Your task to perform on an android device: install app "Venmo" Image 0: 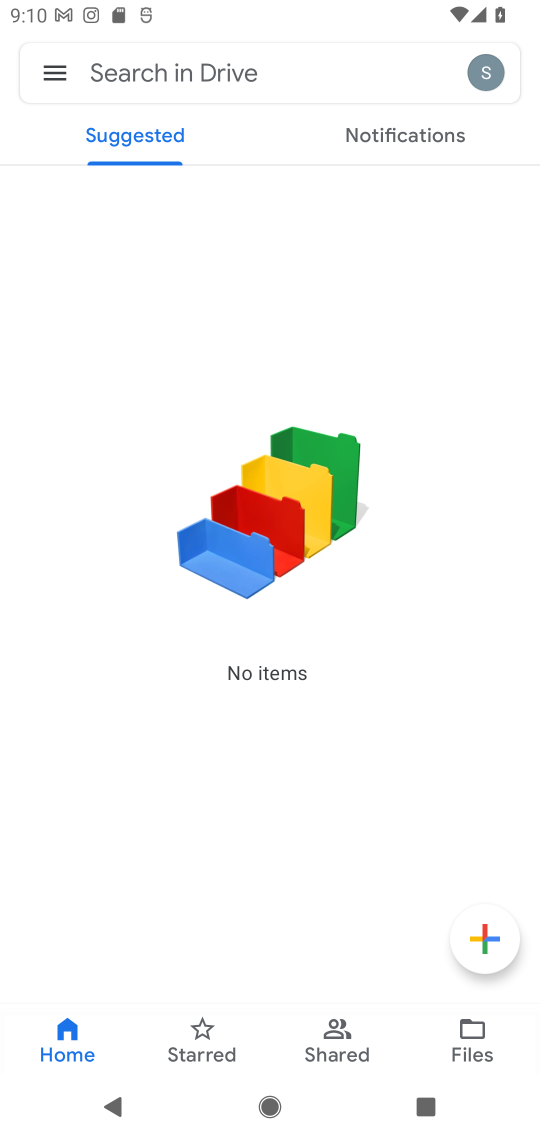
Step 0: press home button
Your task to perform on an android device: install app "Venmo" Image 1: 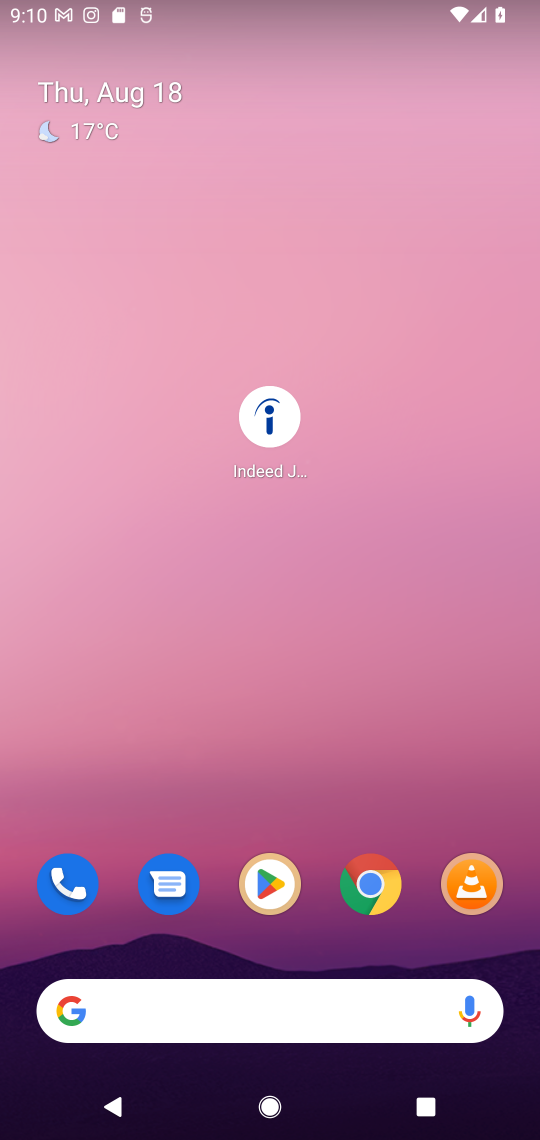
Step 1: drag from (252, 1009) to (250, 86)
Your task to perform on an android device: install app "Venmo" Image 2: 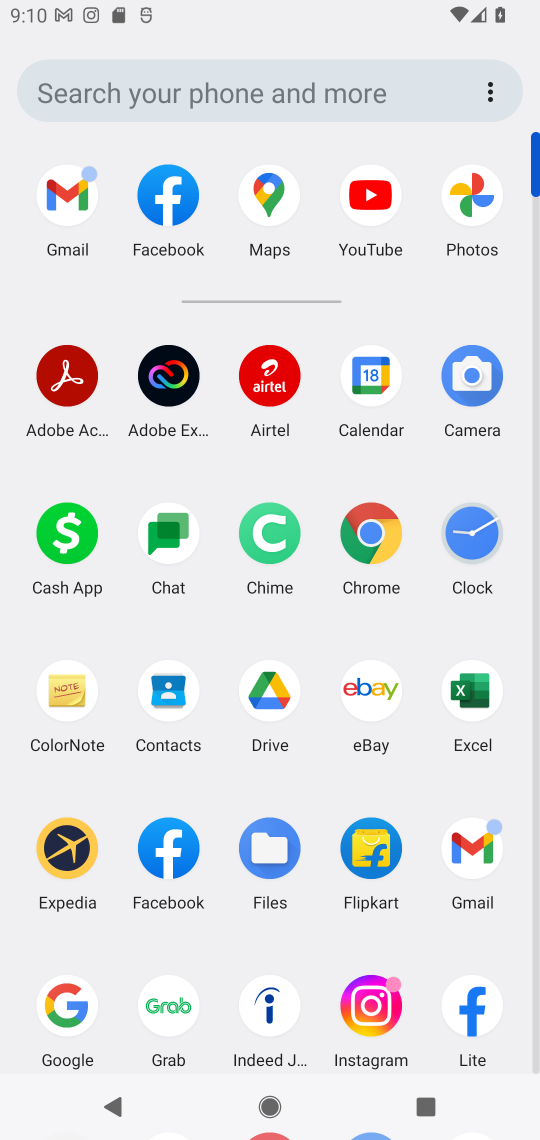
Step 2: drag from (199, 1034) to (216, 297)
Your task to perform on an android device: install app "Venmo" Image 3: 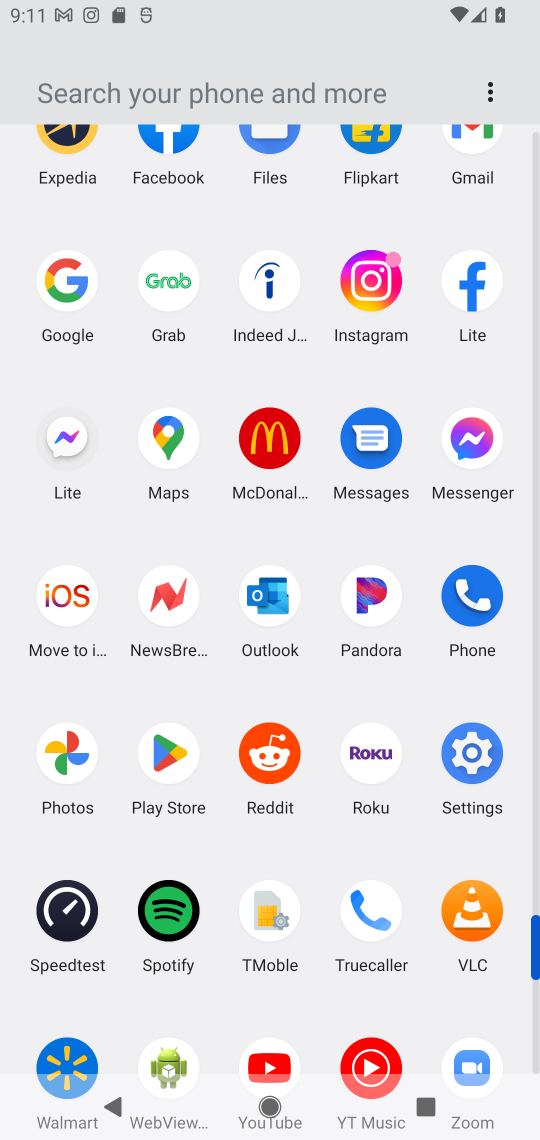
Step 3: click (173, 755)
Your task to perform on an android device: install app "Venmo" Image 4: 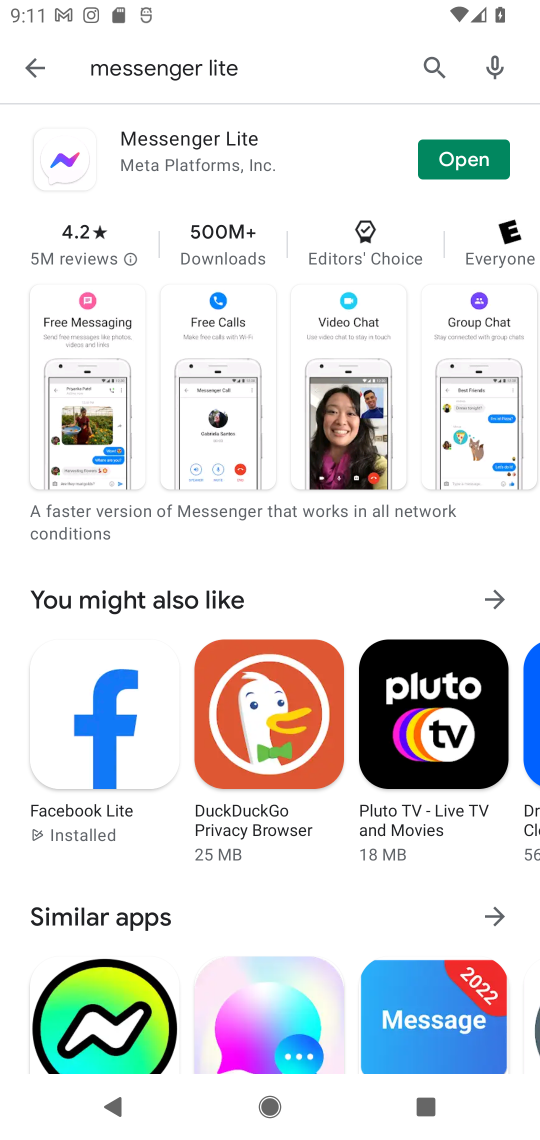
Step 4: press back button
Your task to perform on an android device: install app "Venmo" Image 5: 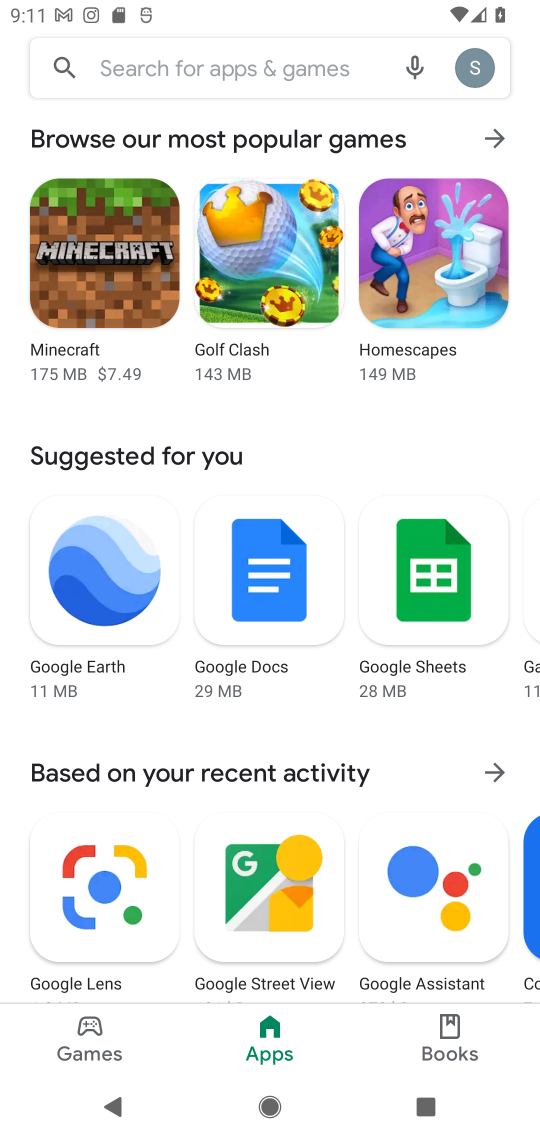
Step 5: click (299, 64)
Your task to perform on an android device: install app "Venmo" Image 6: 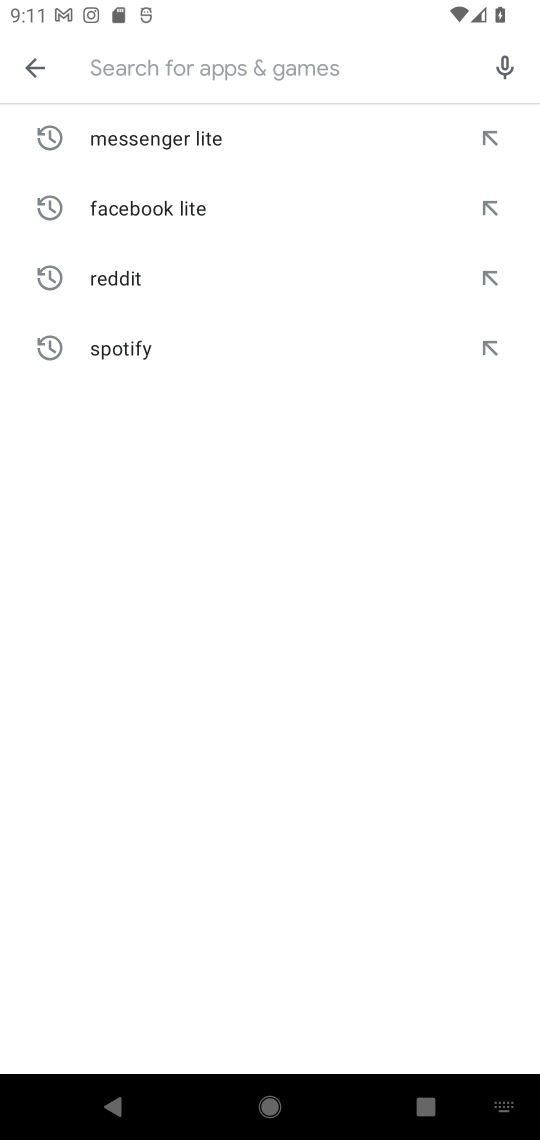
Step 6: type "Venmo"
Your task to perform on an android device: install app "Venmo" Image 7: 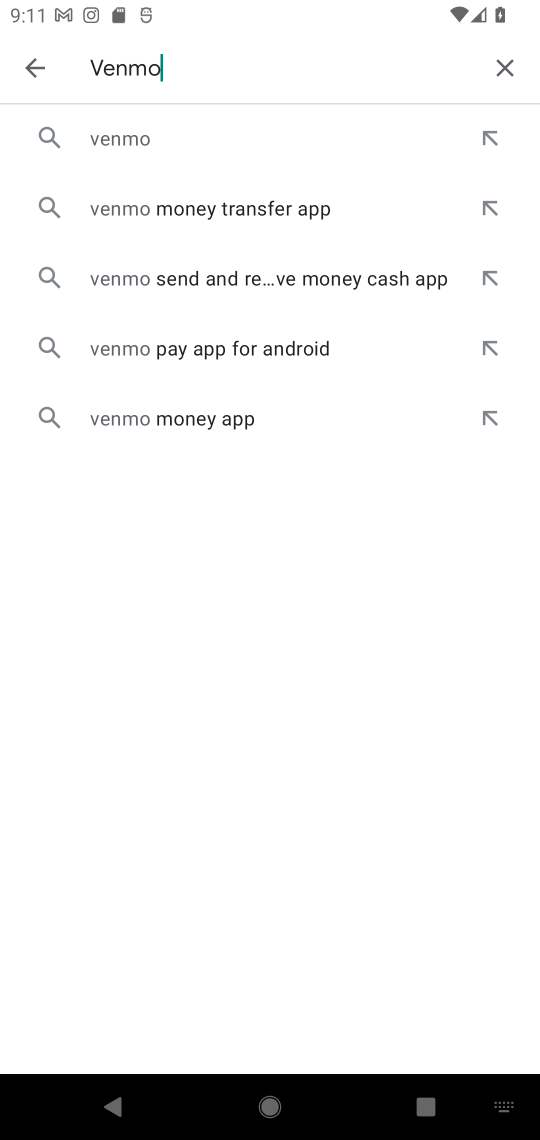
Step 7: click (106, 136)
Your task to perform on an android device: install app "Venmo" Image 8: 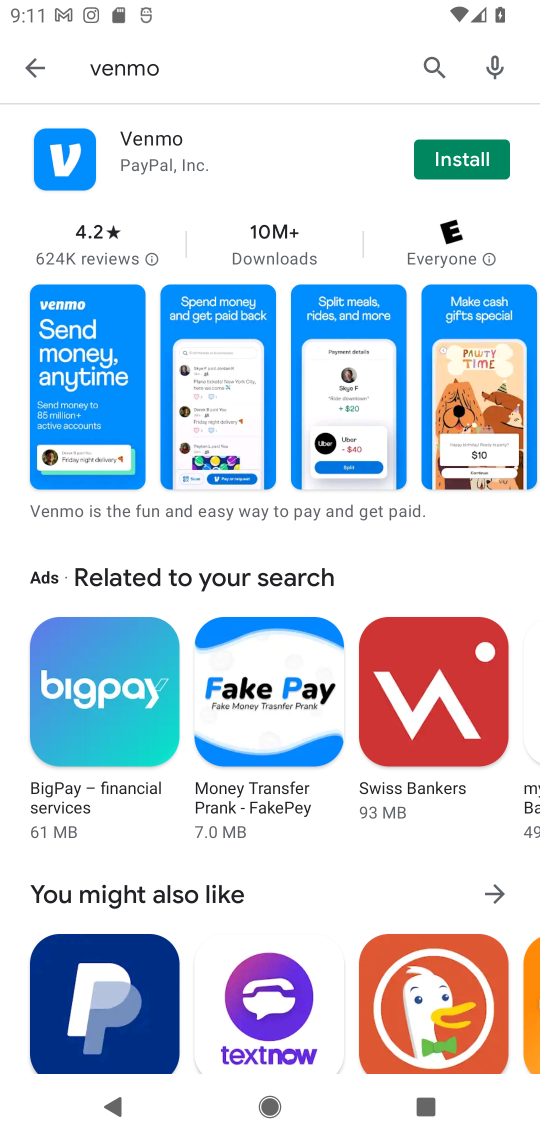
Step 8: click (463, 157)
Your task to perform on an android device: install app "Venmo" Image 9: 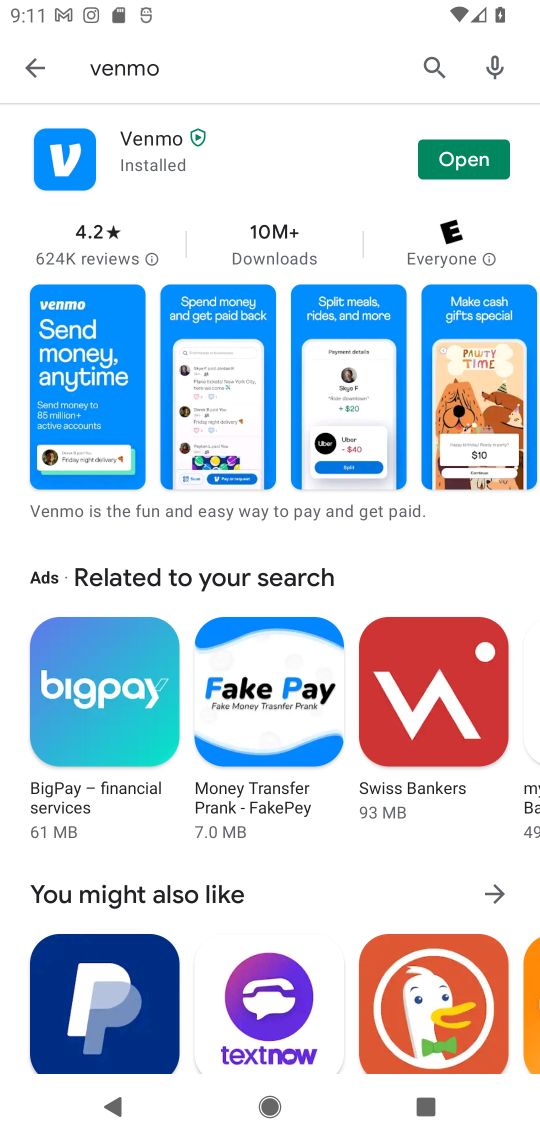
Step 9: task complete